Your task to perform on an android device: Open the calendar and show me this week's events? Image 0: 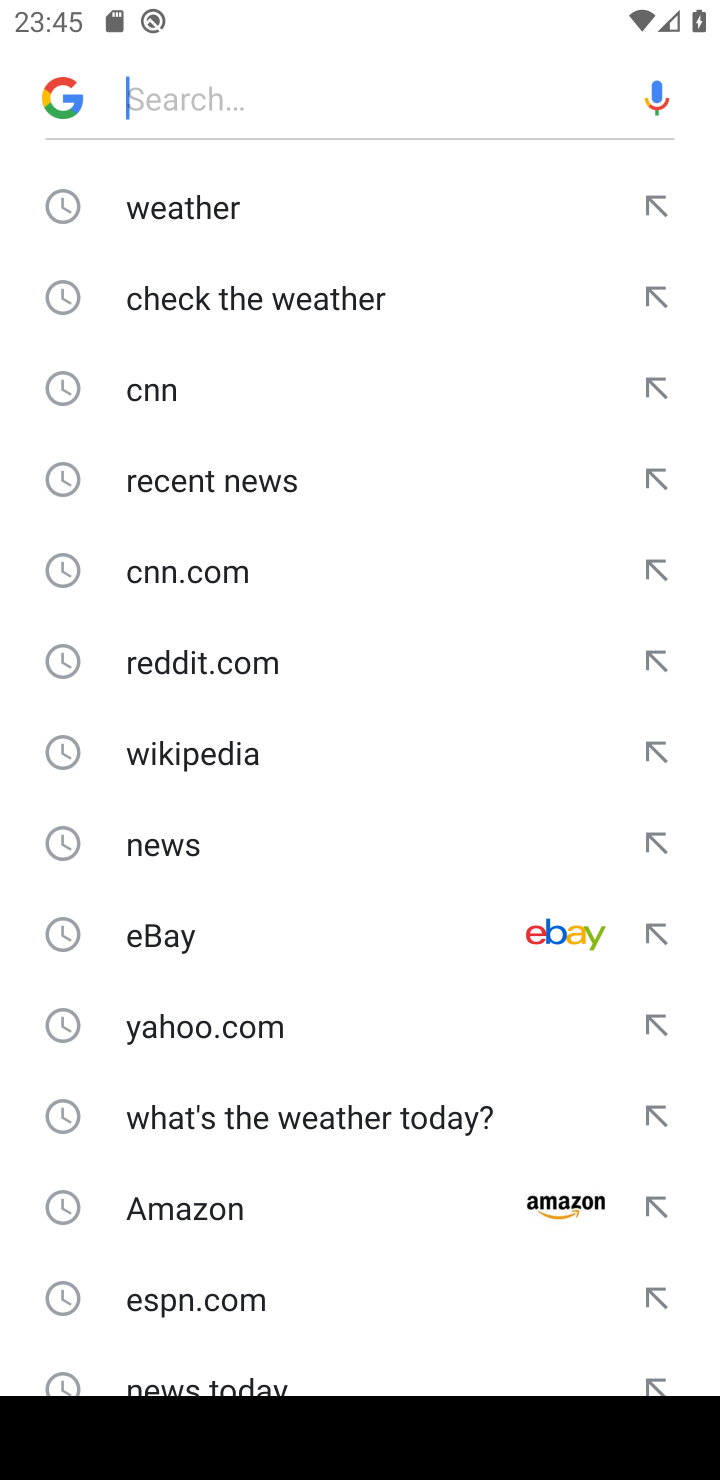
Step 0: press home button
Your task to perform on an android device: Open the calendar and show me this week's events? Image 1: 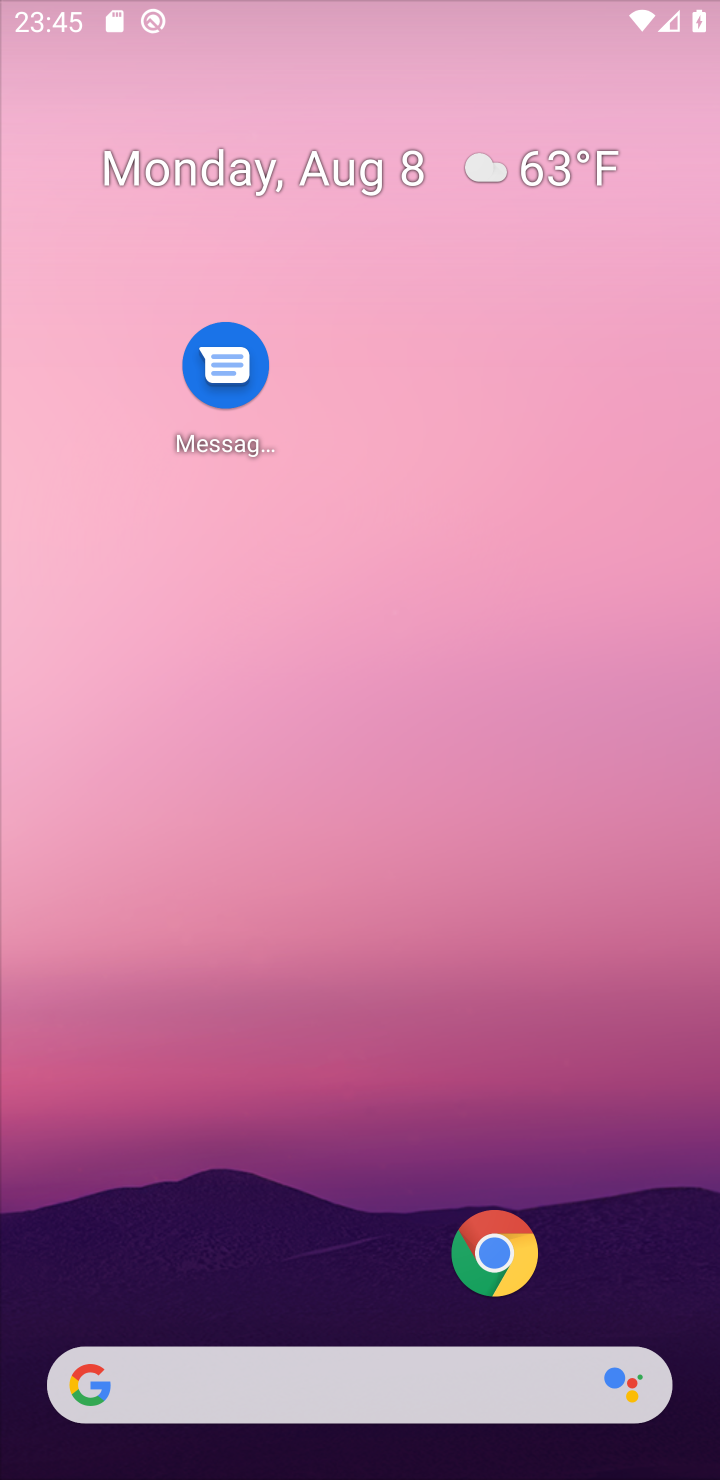
Step 1: drag from (341, 1350) to (394, 193)
Your task to perform on an android device: Open the calendar and show me this week's events? Image 2: 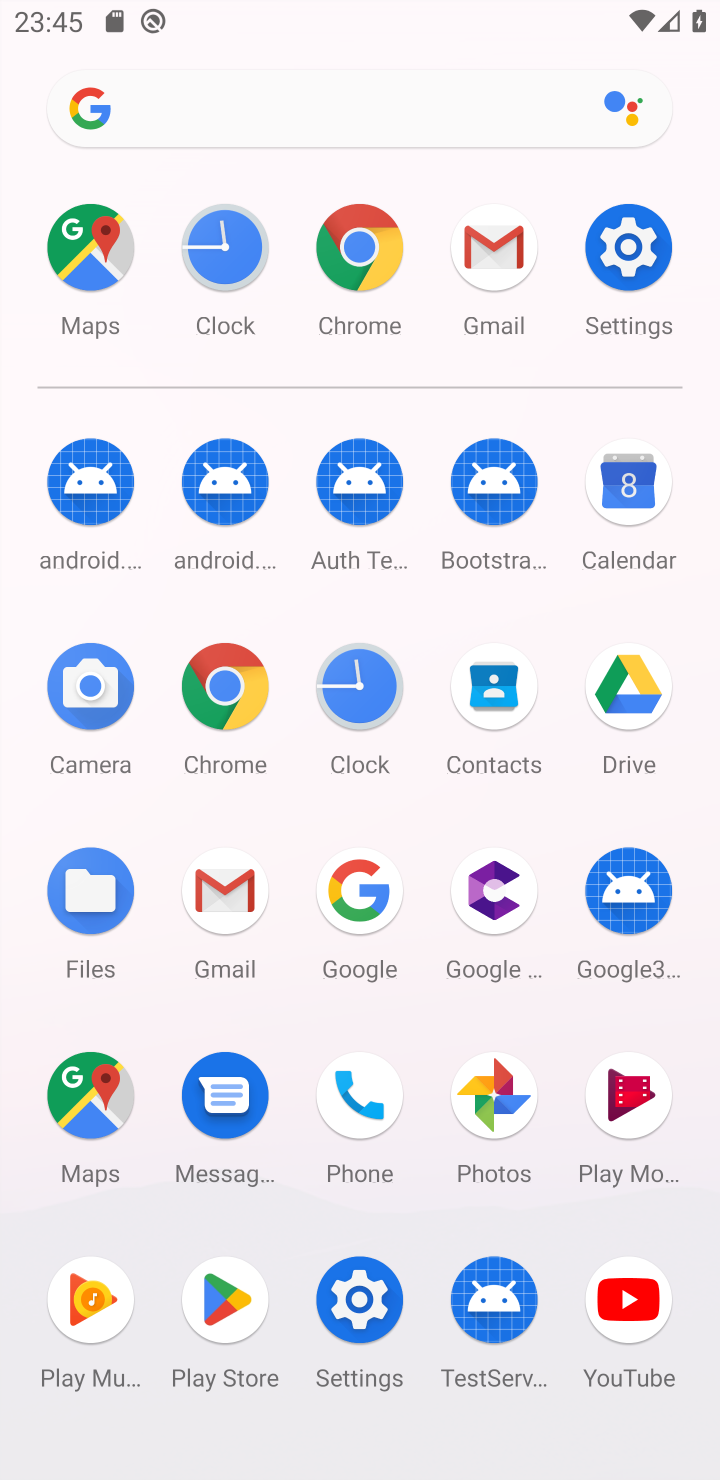
Step 2: click (625, 463)
Your task to perform on an android device: Open the calendar and show me this week's events? Image 3: 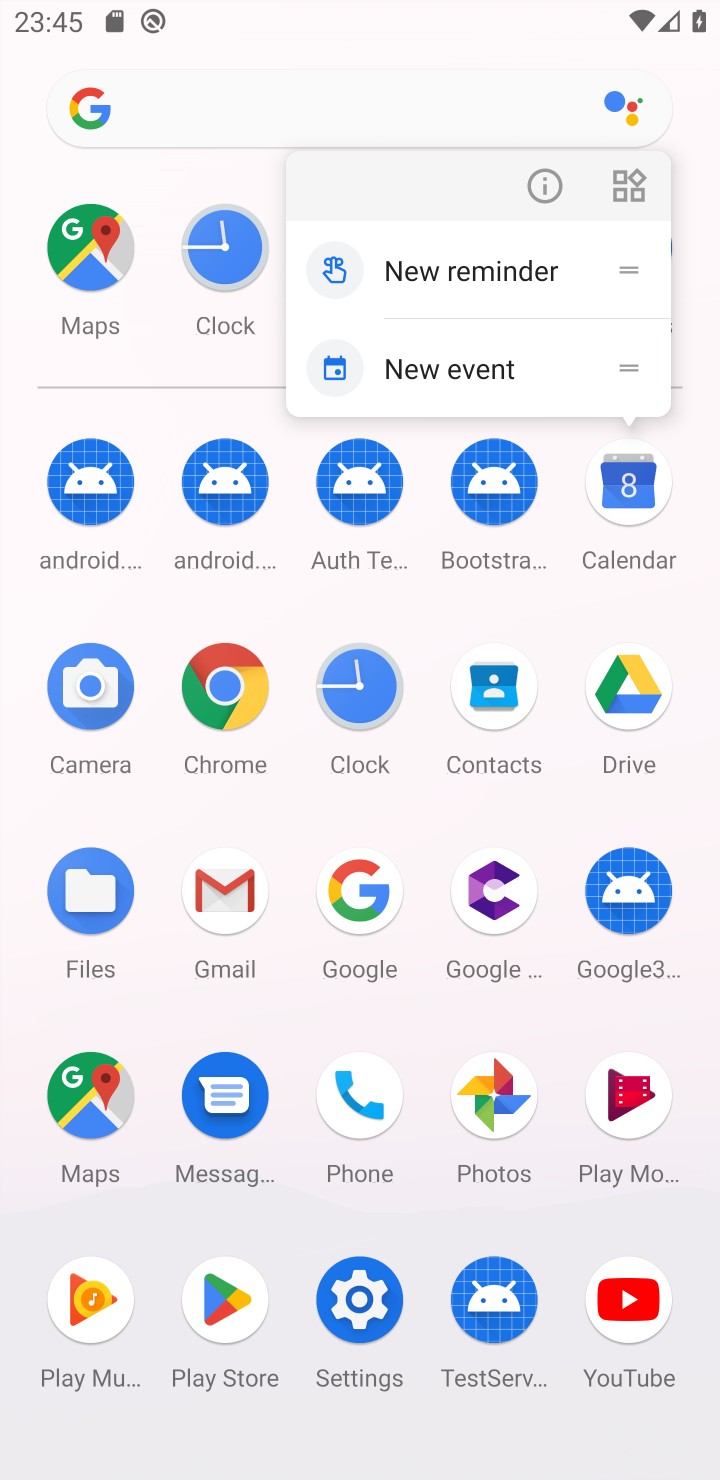
Step 3: click (631, 477)
Your task to perform on an android device: Open the calendar and show me this week's events? Image 4: 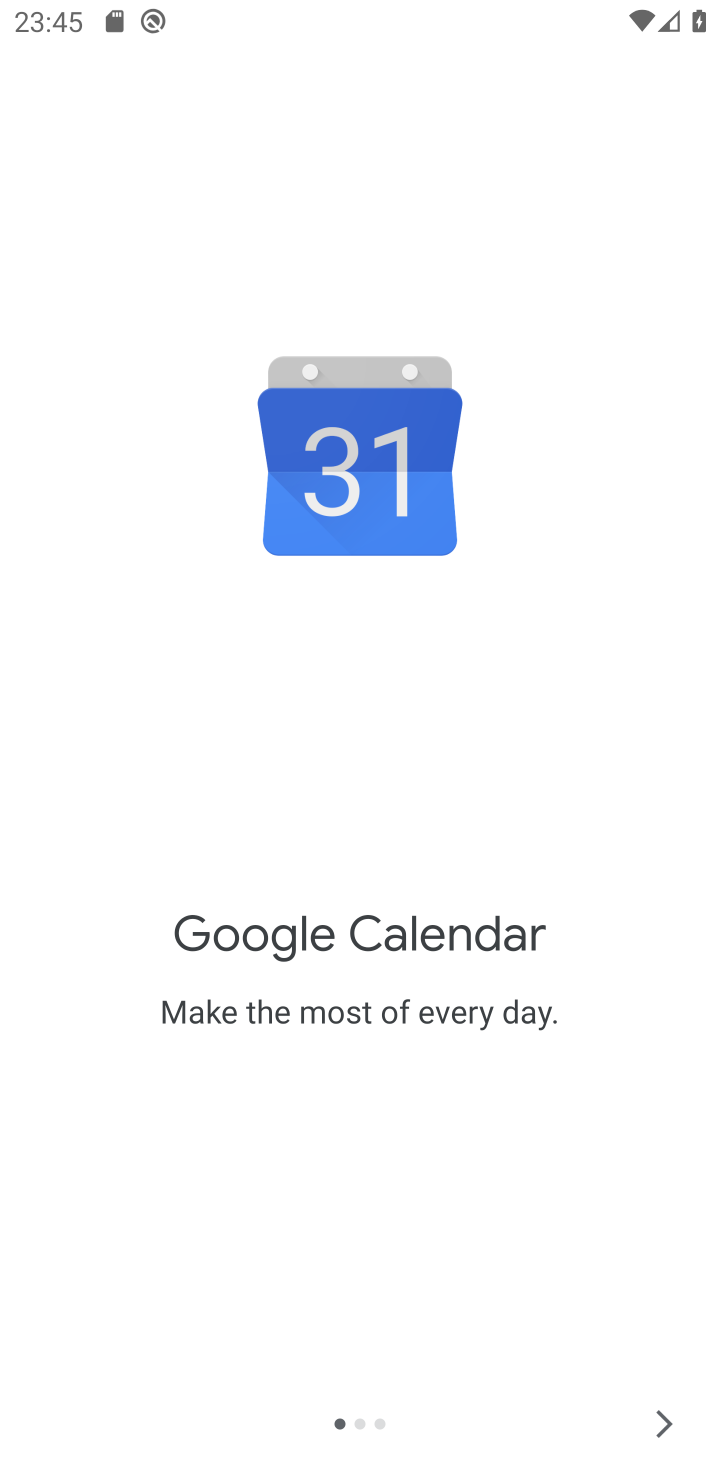
Step 4: click (619, 1407)
Your task to perform on an android device: Open the calendar and show me this week's events? Image 5: 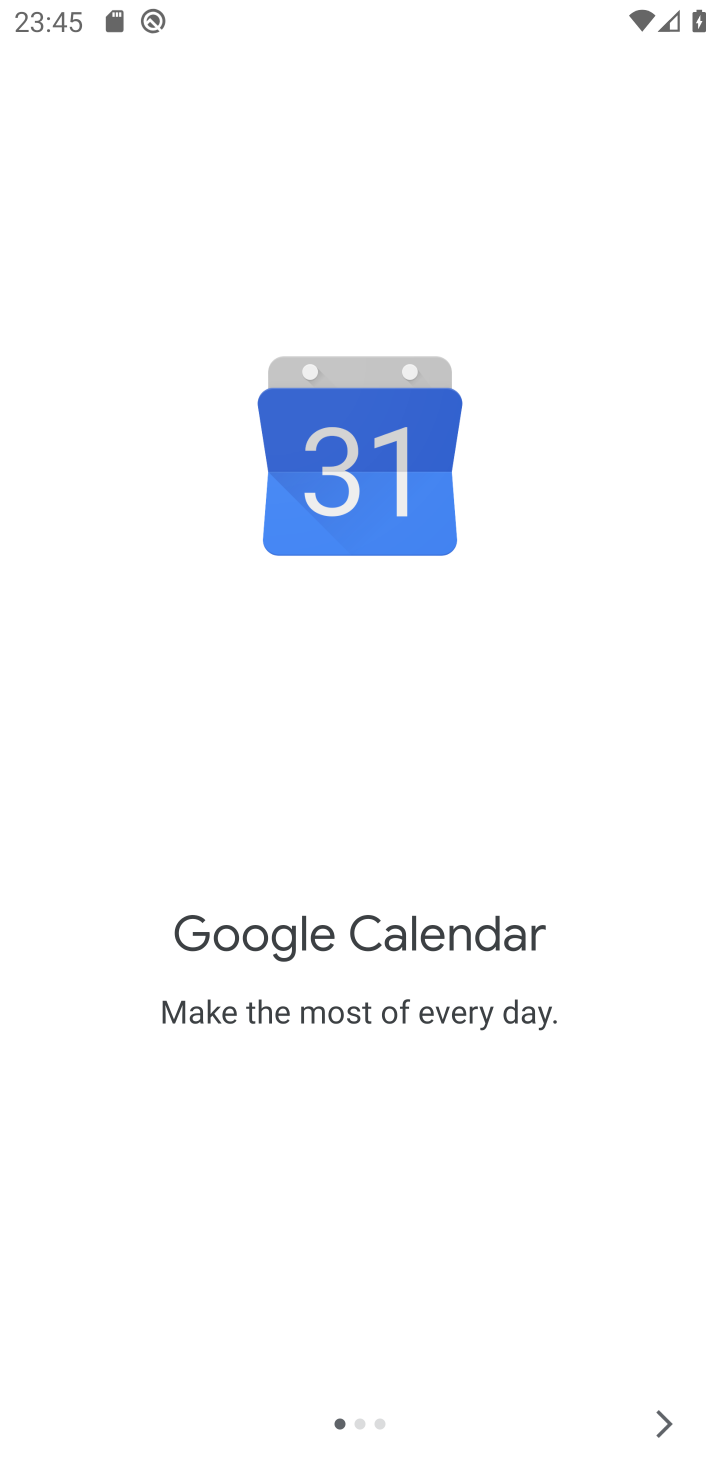
Step 5: click (644, 1436)
Your task to perform on an android device: Open the calendar and show me this week's events? Image 6: 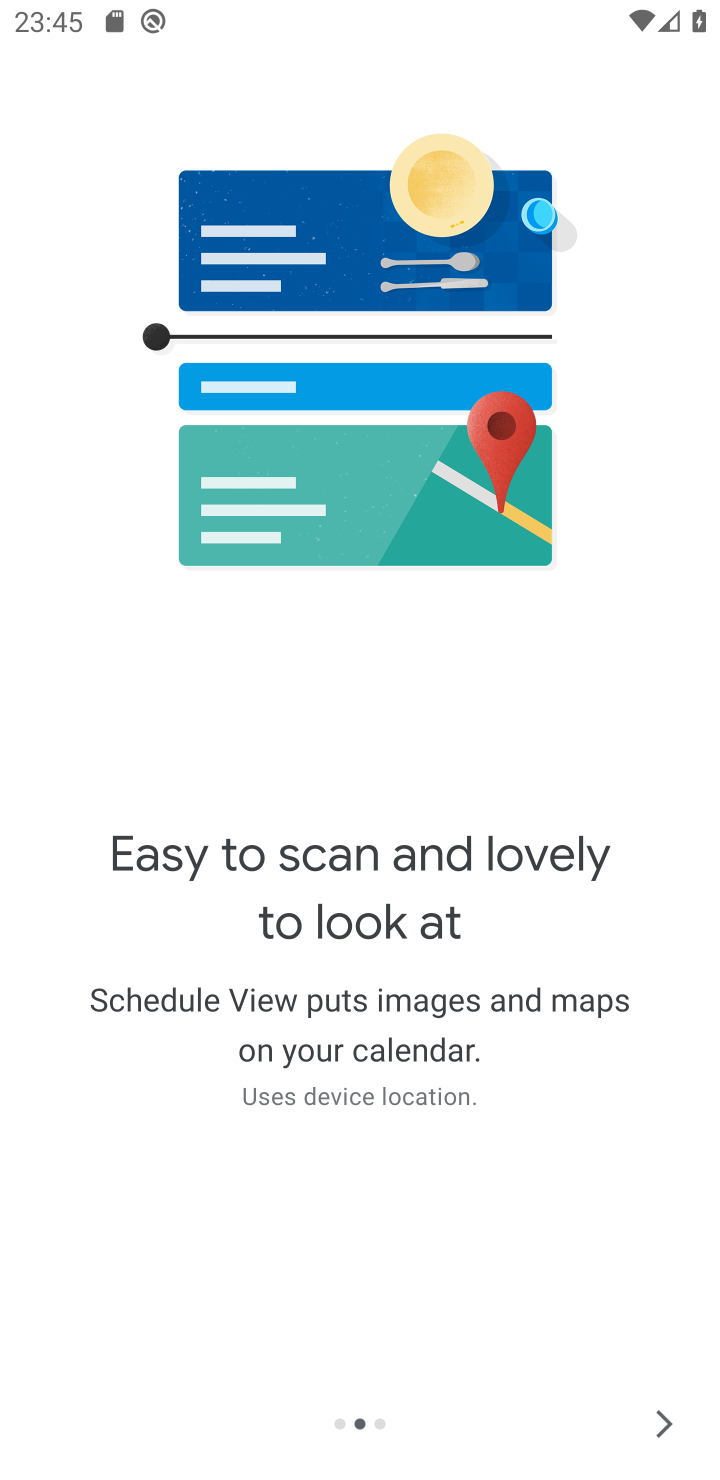
Step 6: click (644, 1436)
Your task to perform on an android device: Open the calendar and show me this week's events? Image 7: 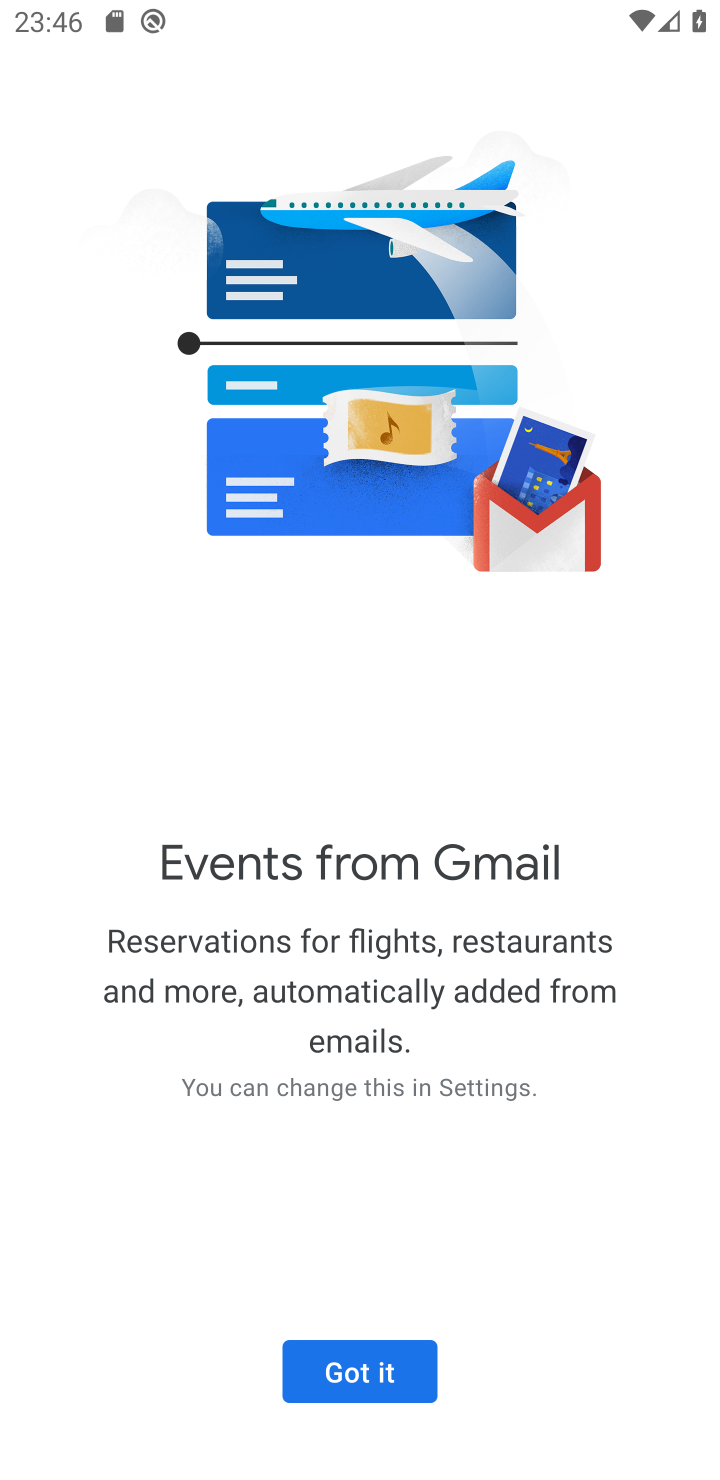
Step 7: click (377, 1373)
Your task to perform on an android device: Open the calendar and show me this week's events? Image 8: 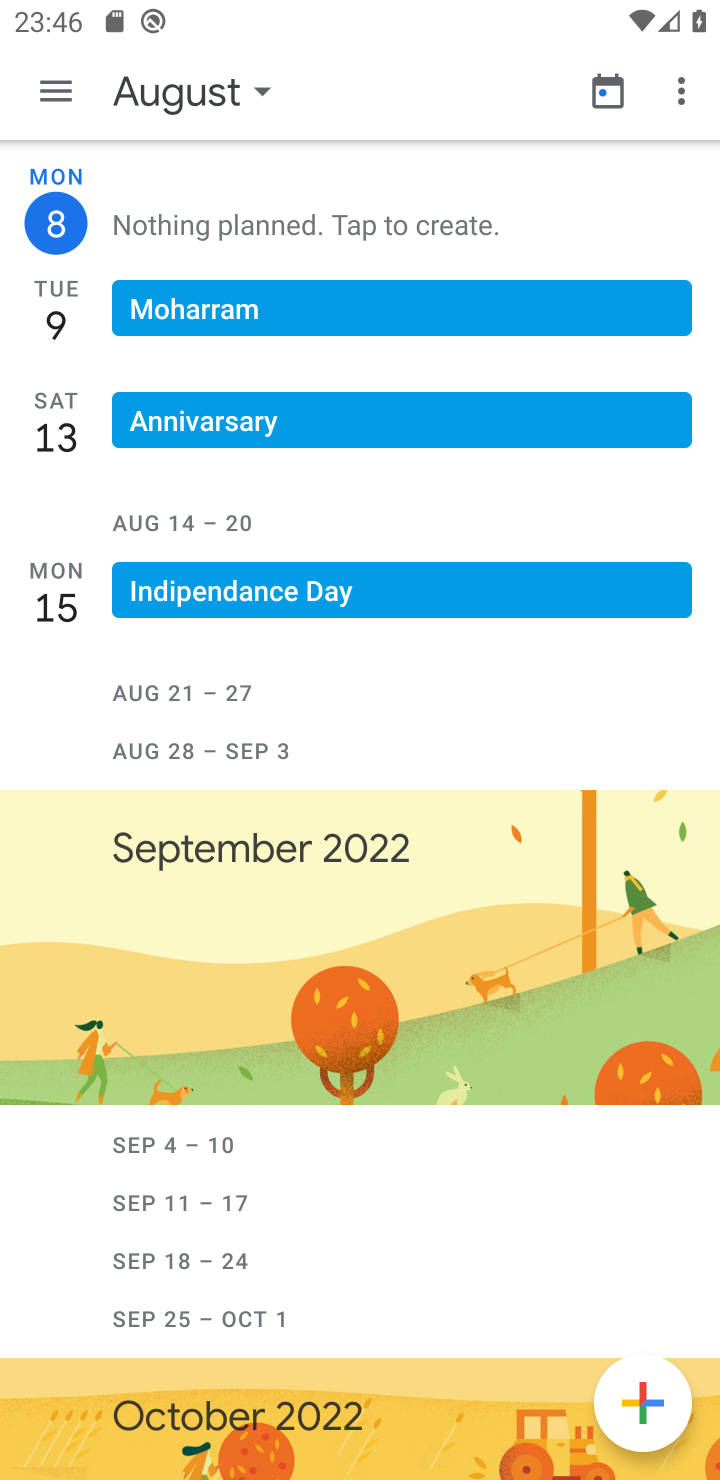
Step 8: click (71, 68)
Your task to perform on an android device: Open the calendar and show me this week's events? Image 9: 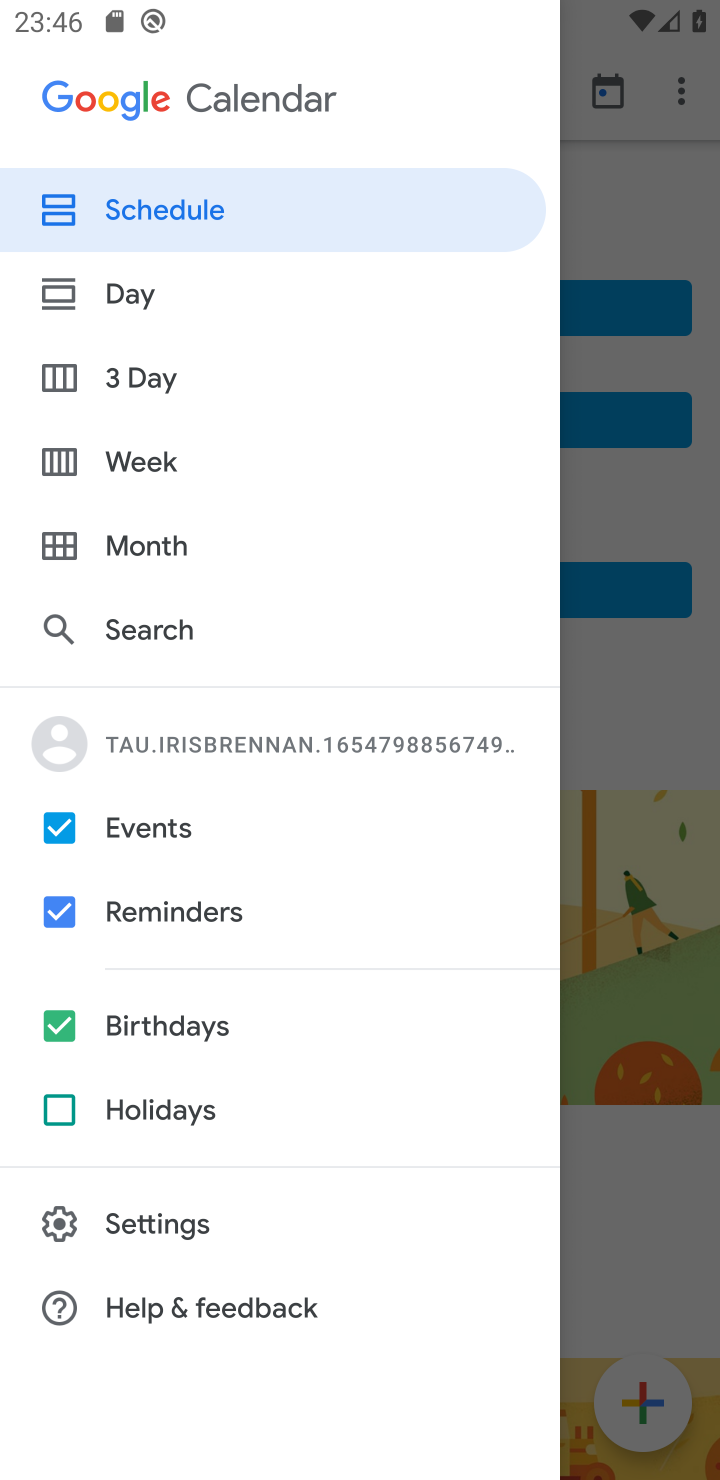
Step 9: click (83, 445)
Your task to perform on an android device: Open the calendar and show me this week's events? Image 10: 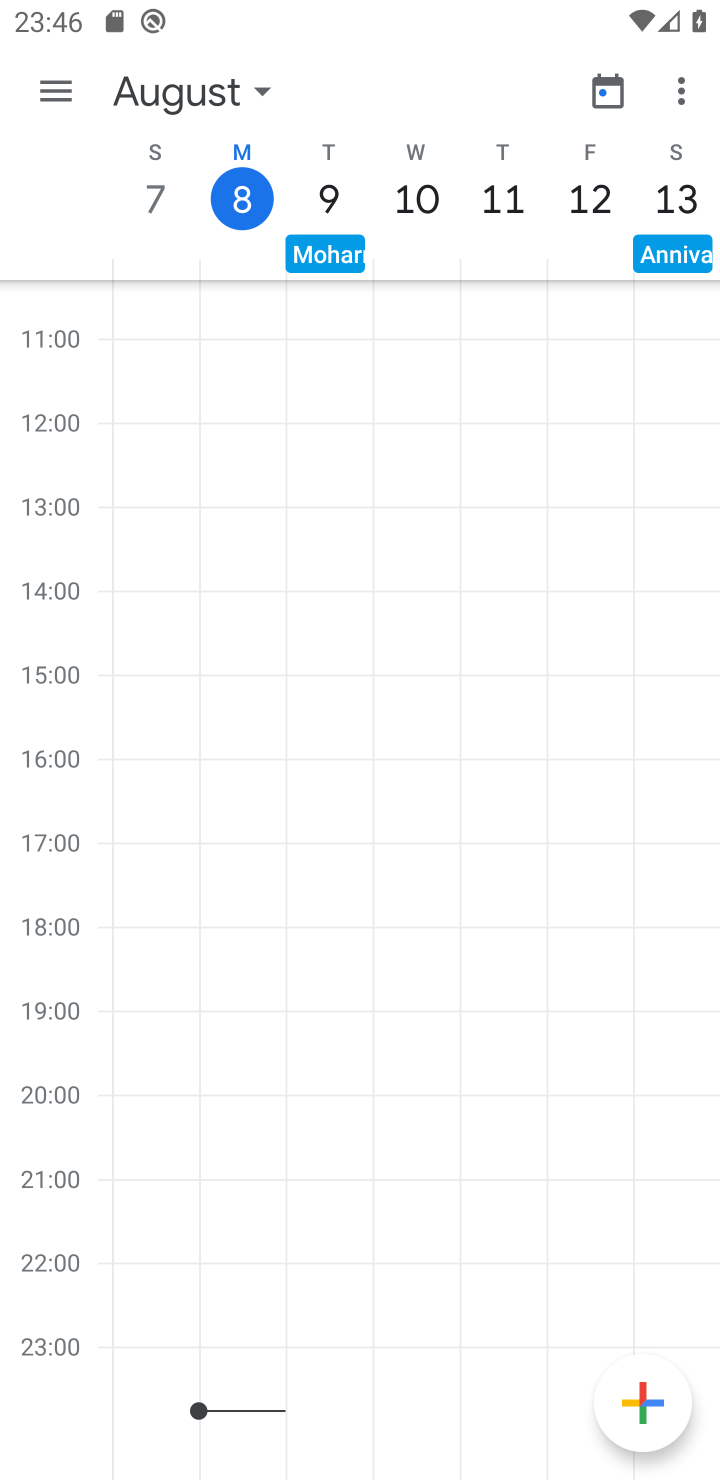
Step 10: drag from (635, 177) to (2, 207)
Your task to perform on an android device: Open the calendar and show me this week's events? Image 11: 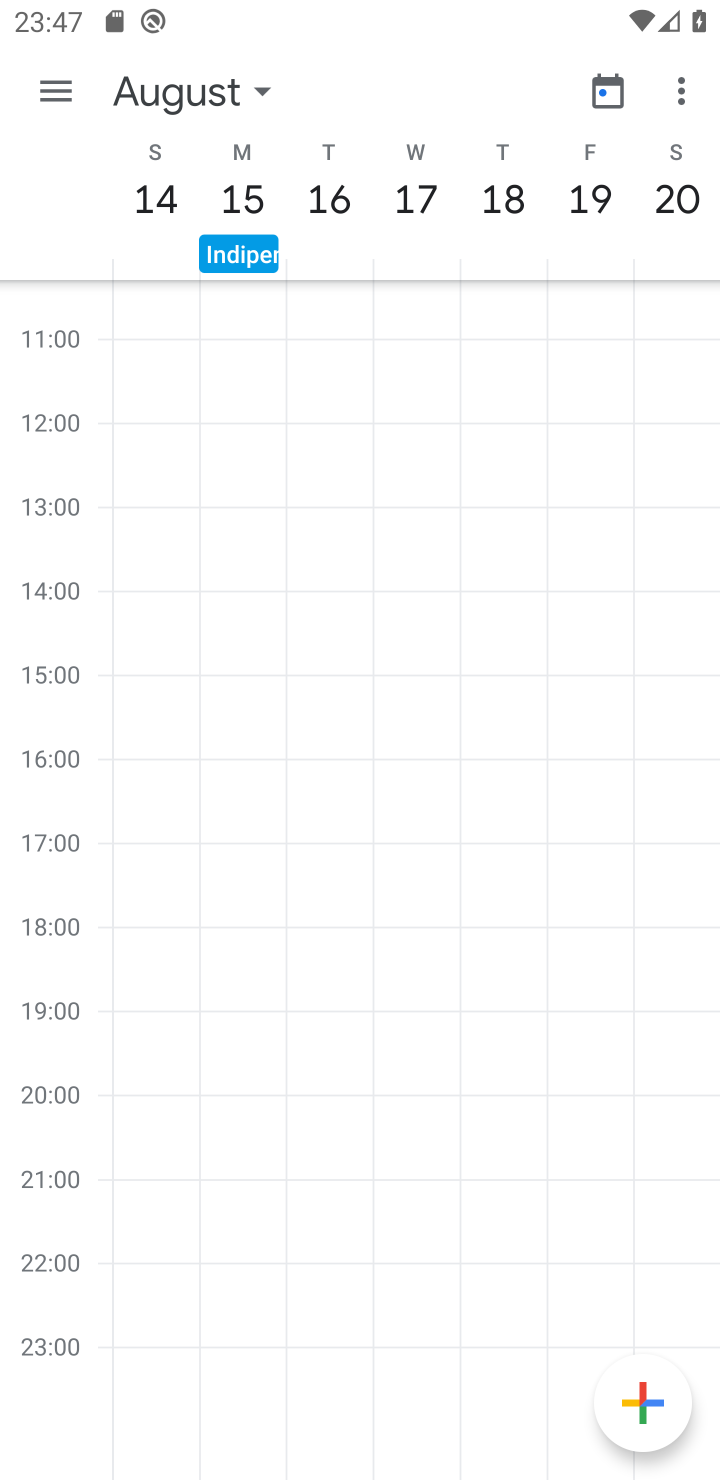
Step 11: click (63, 76)
Your task to perform on an android device: Open the calendar and show me this week's events? Image 12: 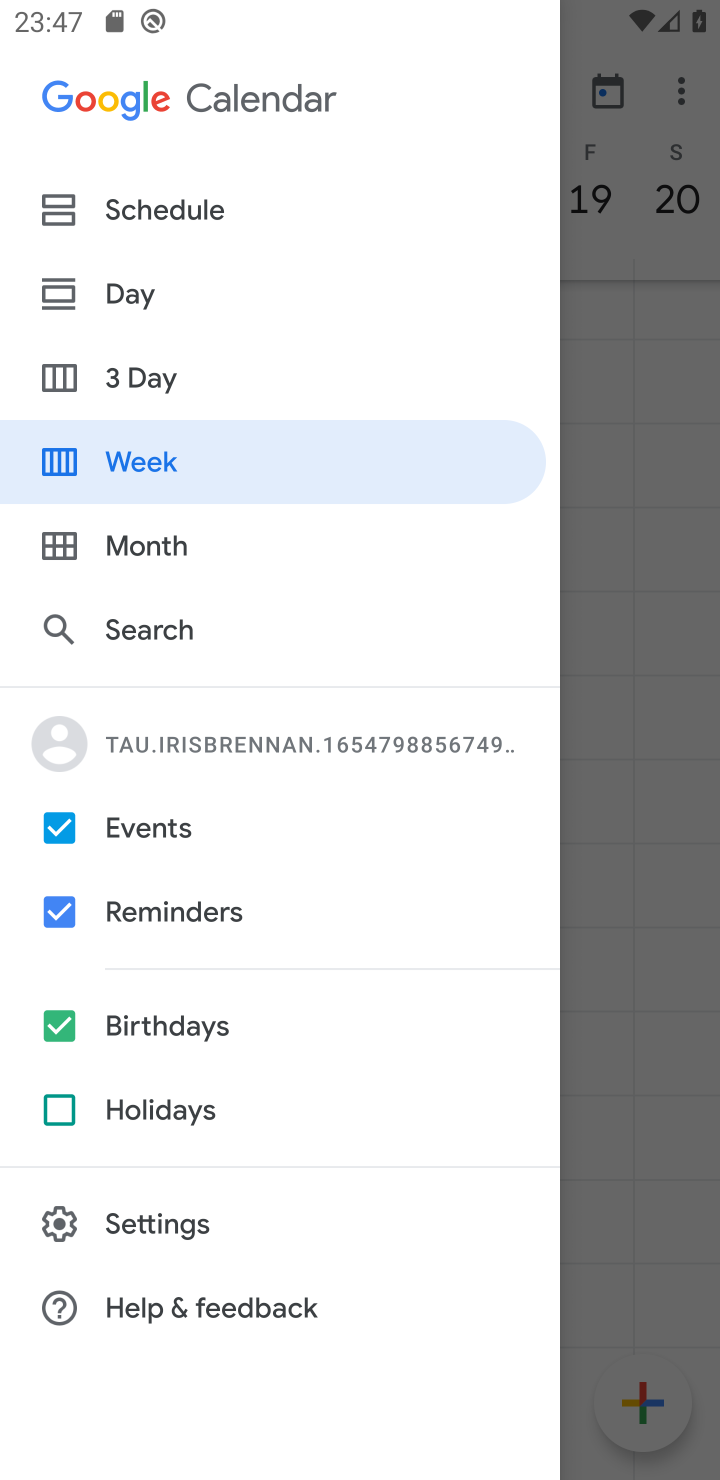
Step 12: click (154, 292)
Your task to perform on an android device: Open the calendar and show me this week's events? Image 13: 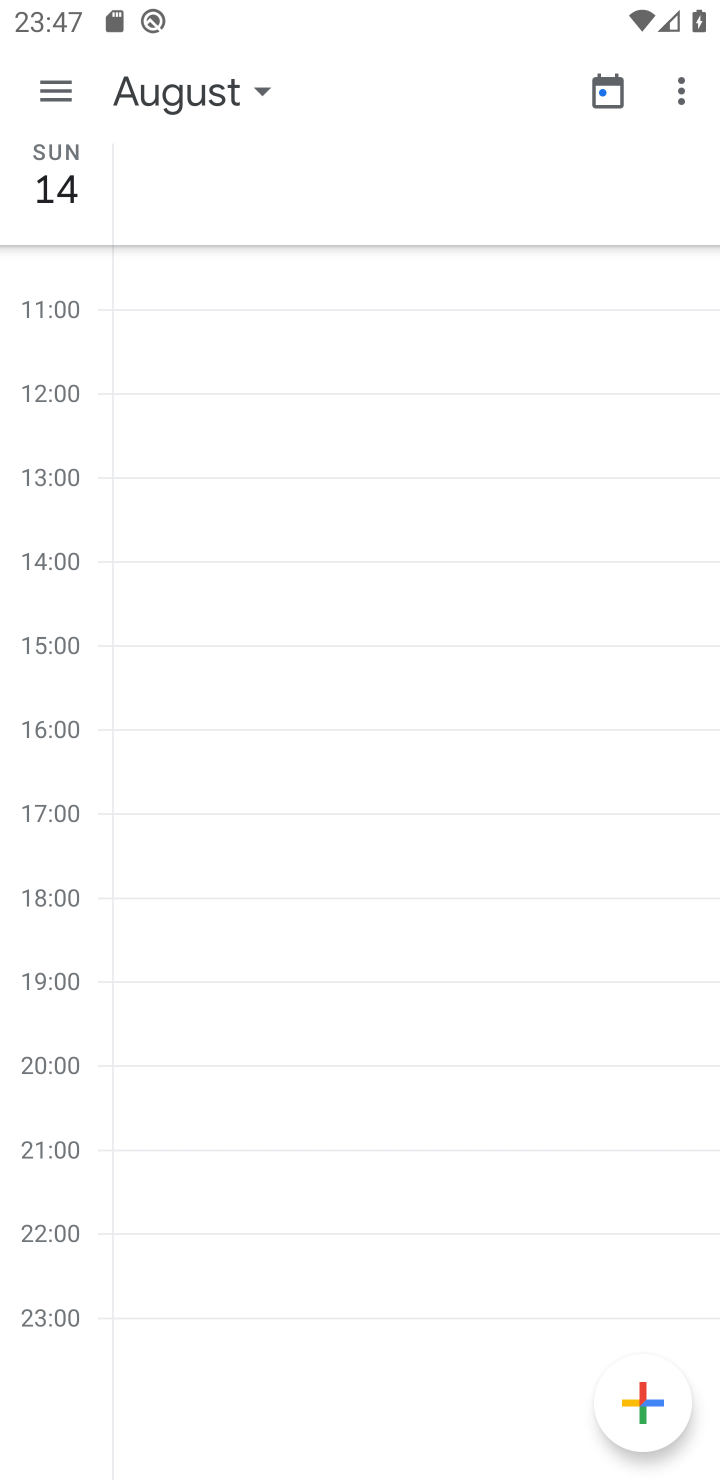
Step 13: task complete